Your task to perform on an android device: empty trash in the gmail app Image 0: 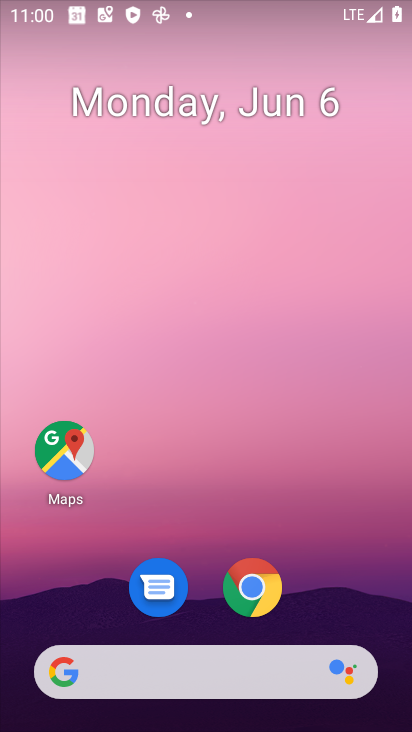
Step 0: drag from (110, 696) to (225, 12)
Your task to perform on an android device: empty trash in the gmail app Image 1: 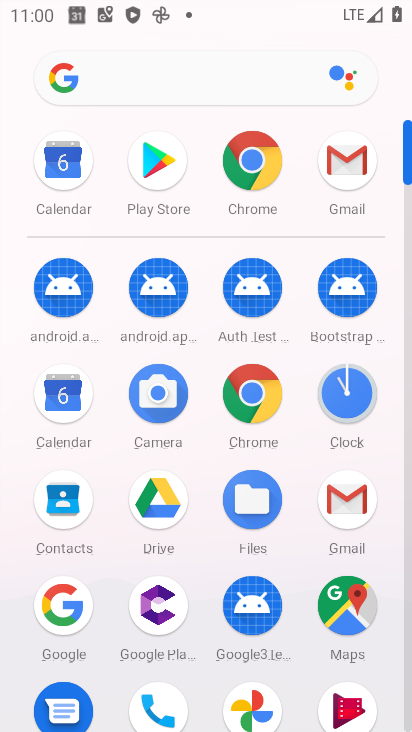
Step 1: click (358, 498)
Your task to perform on an android device: empty trash in the gmail app Image 2: 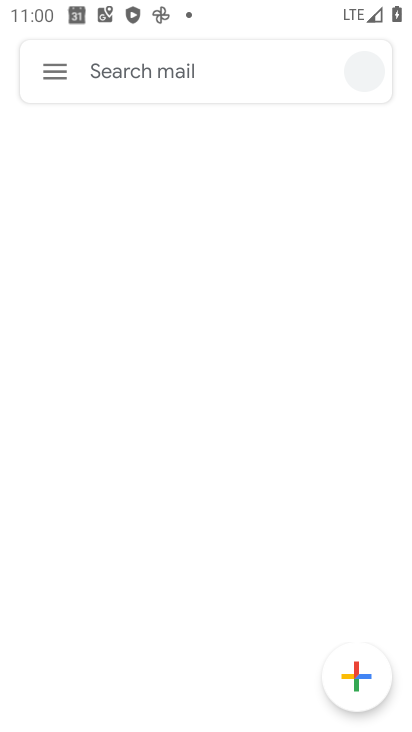
Step 2: click (58, 86)
Your task to perform on an android device: empty trash in the gmail app Image 3: 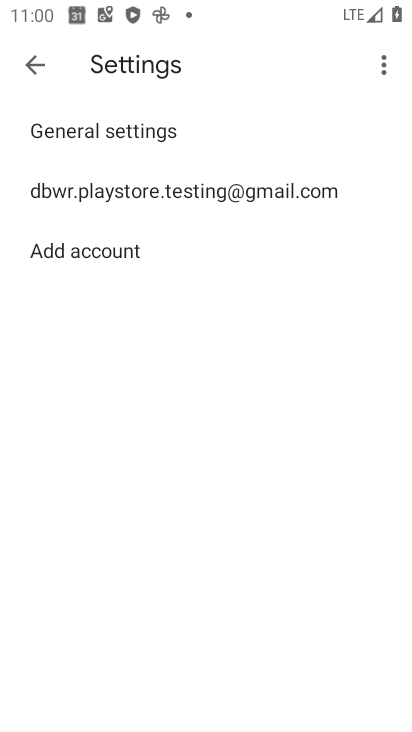
Step 3: click (34, 66)
Your task to perform on an android device: empty trash in the gmail app Image 4: 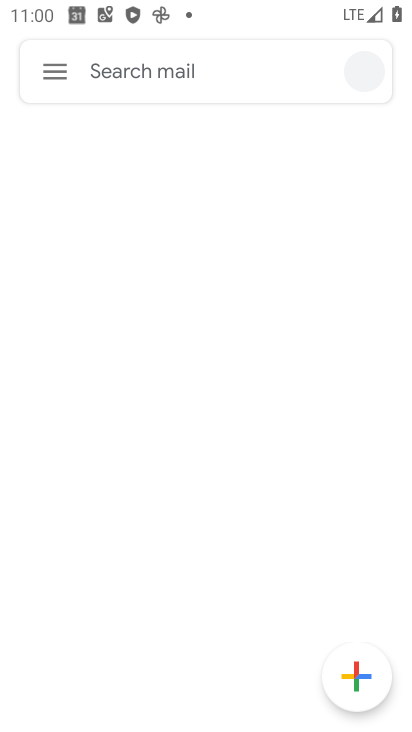
Step 4: click (34, 66)
Your task to perform on an android device: empty trash in the gmail app Image 5: 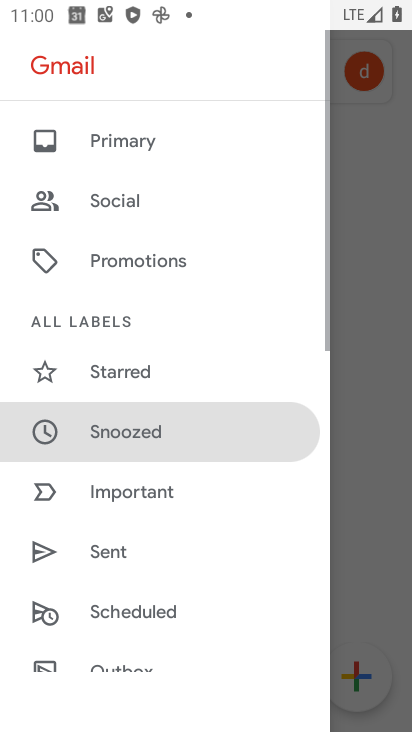
Step 5: drag from (167, 639) to (203, 301)
Your task to perform on an android device: empty trash in the gmail app Image 6: 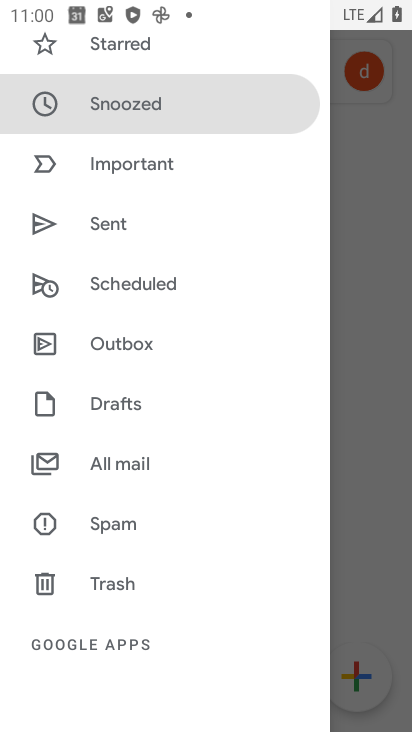
Step 6: click (141, 592)
Your task to perform on an android device: empty trash in the gmail app Image 7: 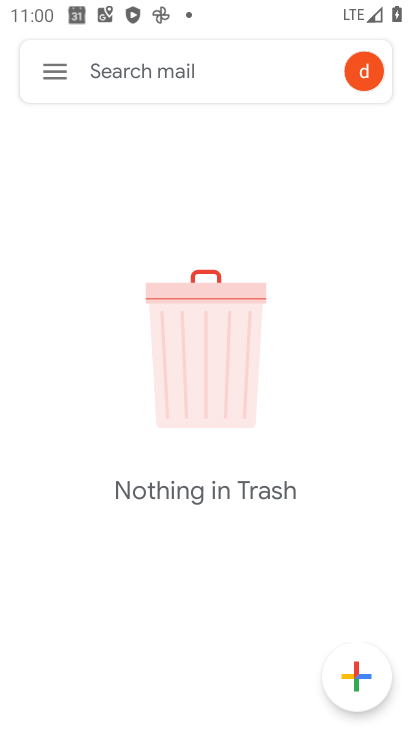
Step 7: task complete